Your task to perform on an android device: turn off picture-in-picture Image 0: 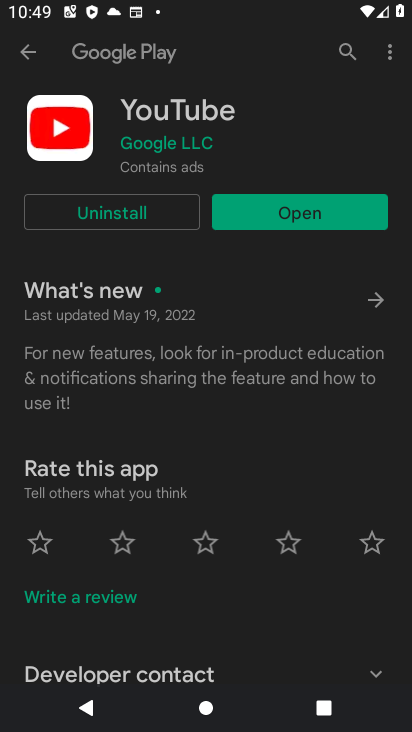
Step 0: press home button
Your task to perform on an android device: turn off picture-in-picture Image 1: 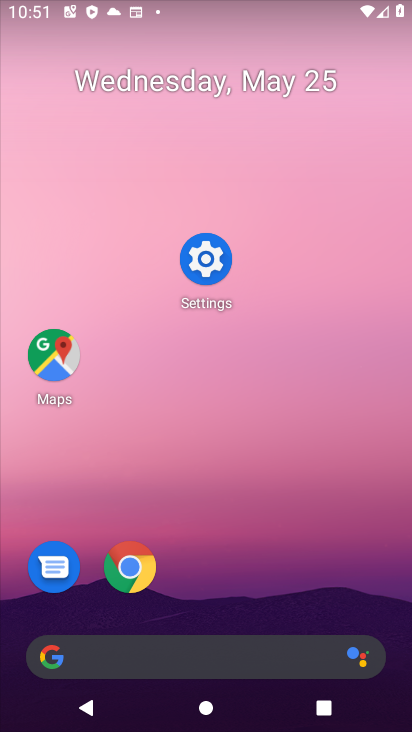
Step 1: click (207, 250)
Your task to perform on an android device: turn off picture-in-picture Image 2: 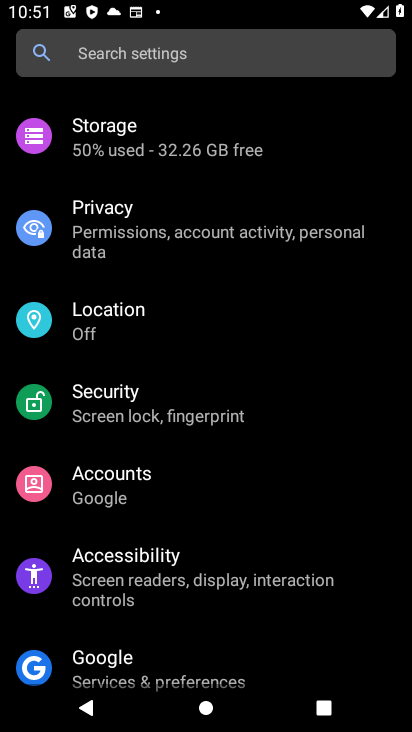
Step 2: drag from (229, 227) to (261, 634)
Your task to perform on an android device: turn off picture-in-picture Image 3: 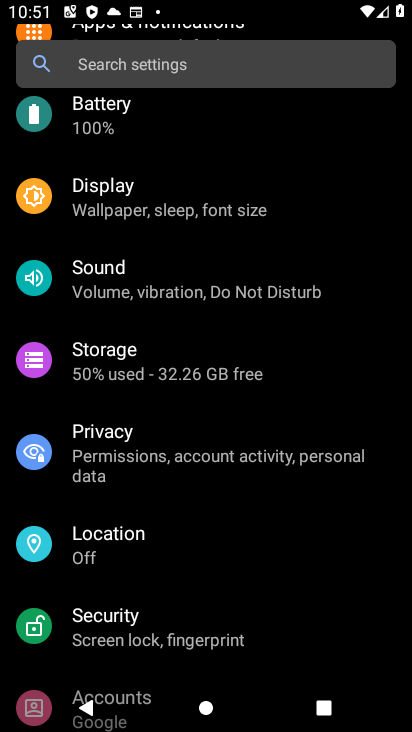
Step 3: drag from (226, 197) to (178, 683)
Your task to perform on an android device: turn off picture-in-picture Image 4: 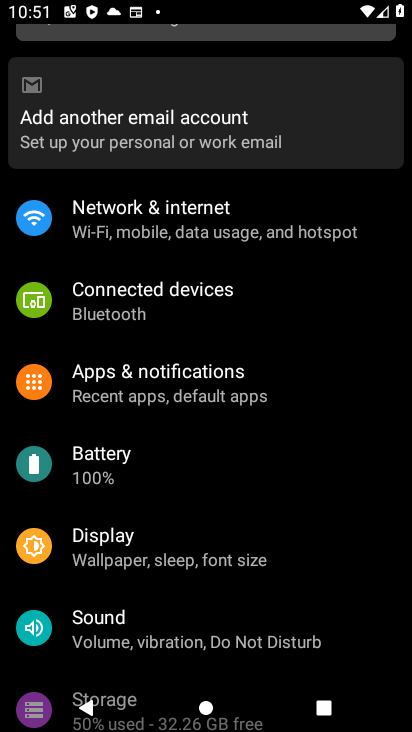
Step 4: click (237, 413)
Your task to perform on an android device: turn off picture-in-picture Image 5: 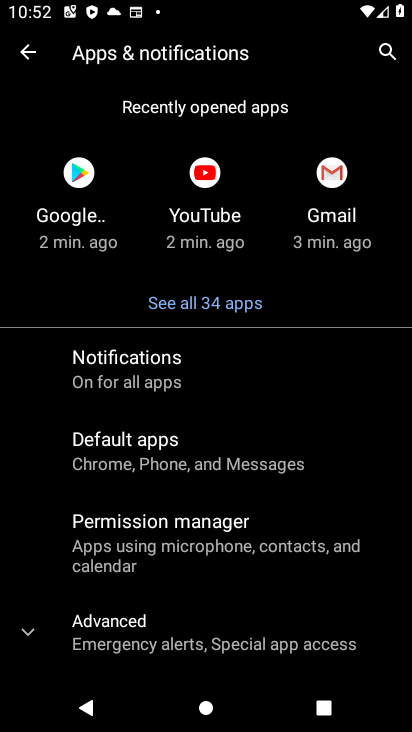
Step 5: click (199, 396)
Your task to perform on an android device: turn off picture-in-picture Image 6: 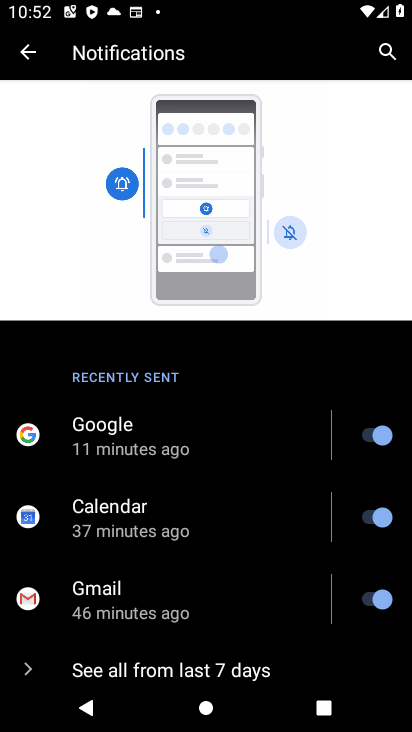
Step 6: drag from (226, 516) to (251, 102)
Your task to perform on an android device: turn off picture-in-picture Image 7: 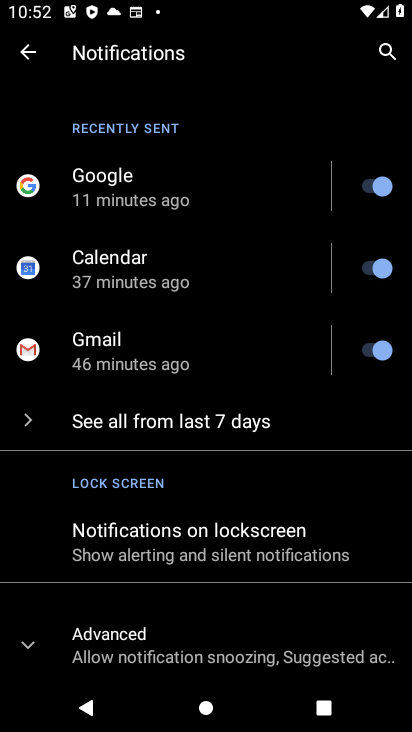
Step 7: click (184, 624)
Your task to perform on an android device: turn off picture-in-picture Image 8: 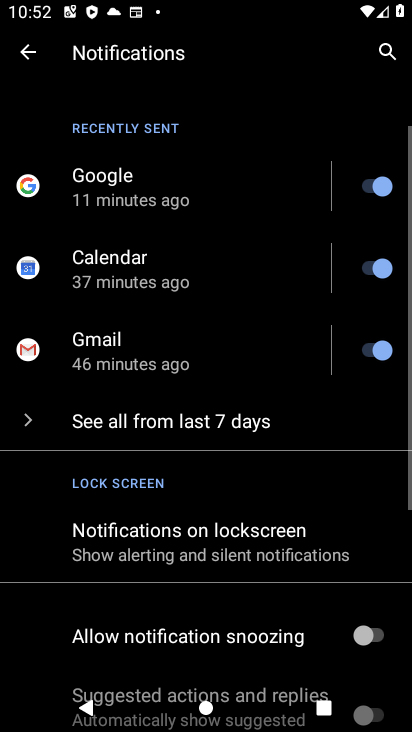
Step 8: task complete